Your task to perform on an android device: Go to display settings Image 0: 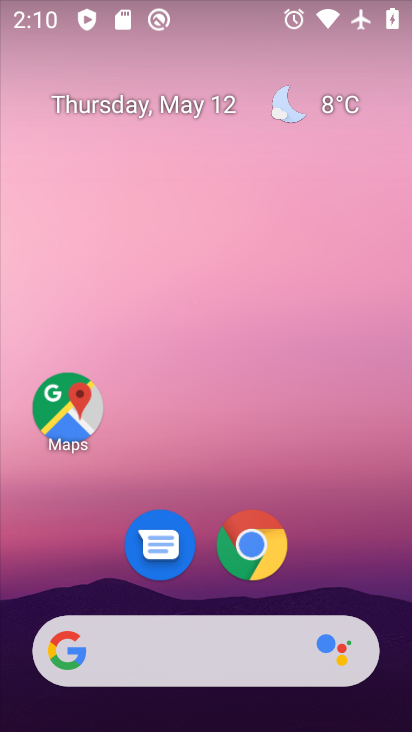
Step 0: drag from (389, 625) to (275, 163)
Your task to perform on an android device: Go to display settings Image 1: 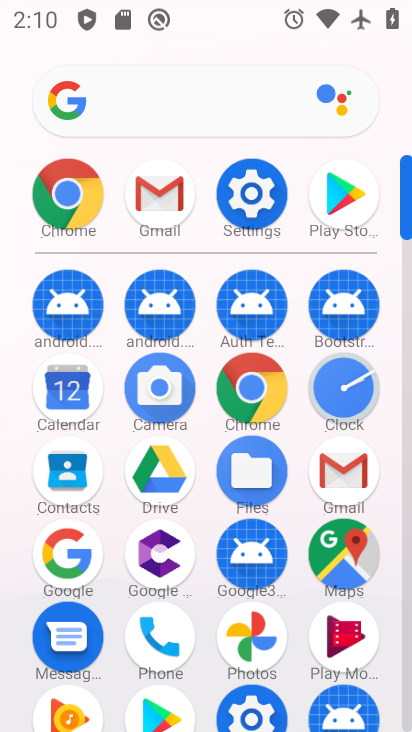
Step 1: click (409, 710)
Your task to perform on an android device: Go to display settings Image 2: 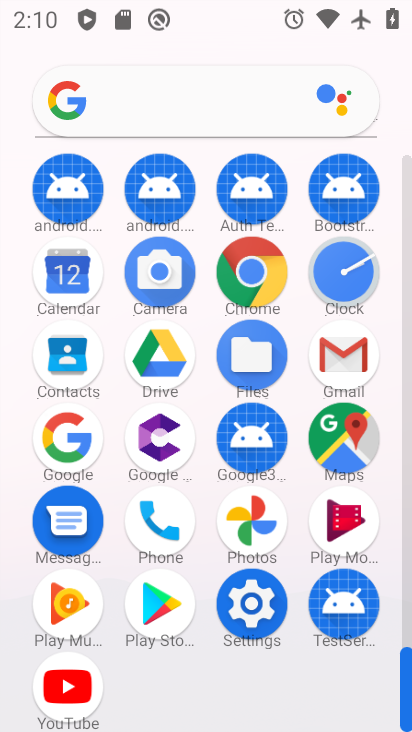
Step 2: click (252, 604)
Your task to perform on an android device: Go to display settings Image 3: 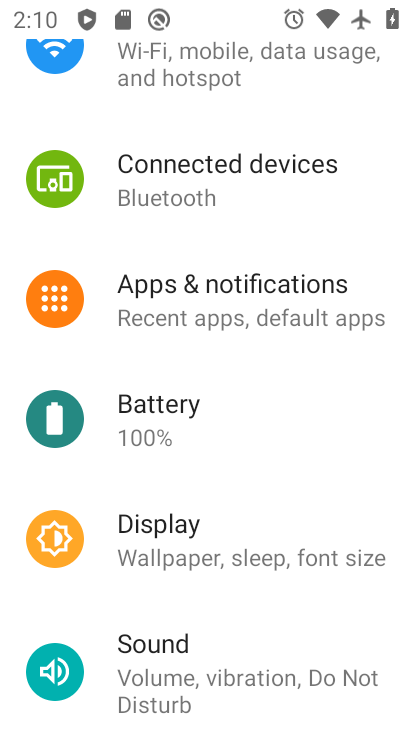
Step 3: click (163, 549)
Your task to perform on an android device: Go to display settings Image 4: 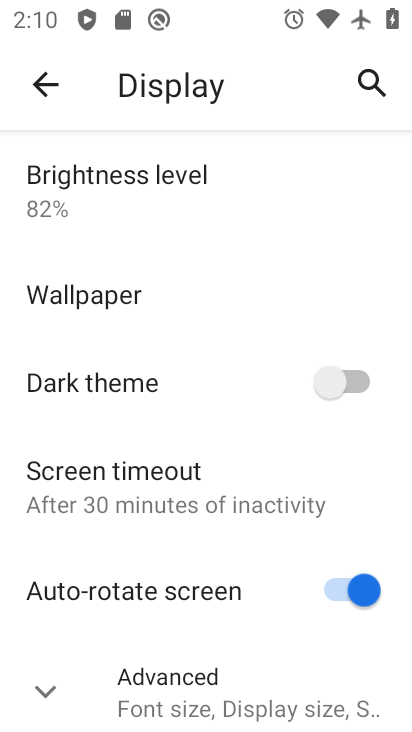
Step 4: click (46, 693)
Your task to perform on an android device: Go to display settings Image 5: 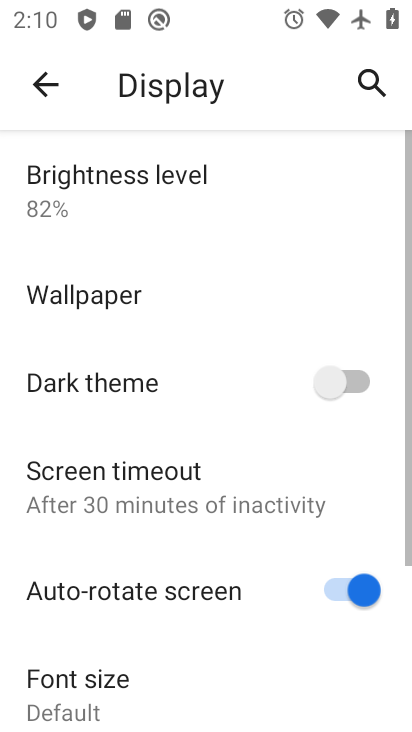
Step 5: task complete